Your task to perform on an android device: toggle translation in the chrome app Image 0: 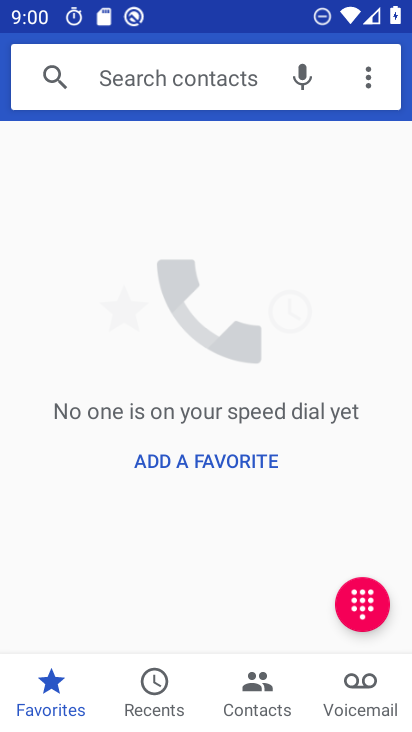
Step 0: press home button
Your task to perform on an android device: toggle translation in the chrome app Image 1: 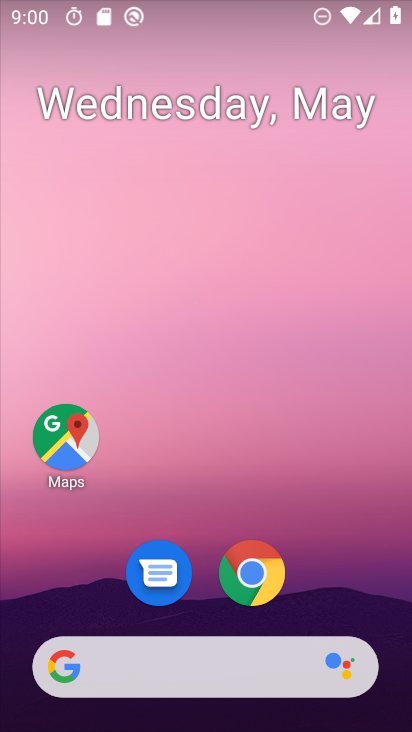
Step 1: click (264, 571)
Your task to perform on an android device: toggle translation in the chrome app Image 2: 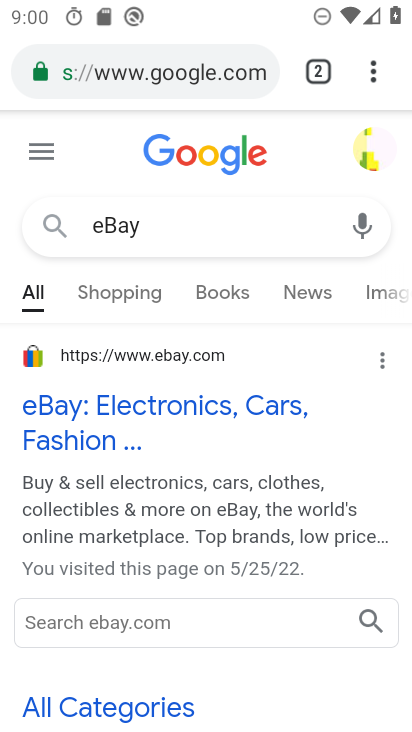
Step 2: click (372, 71)
Your task to perform on an android device: toggle translation in the chrome app Image 3: 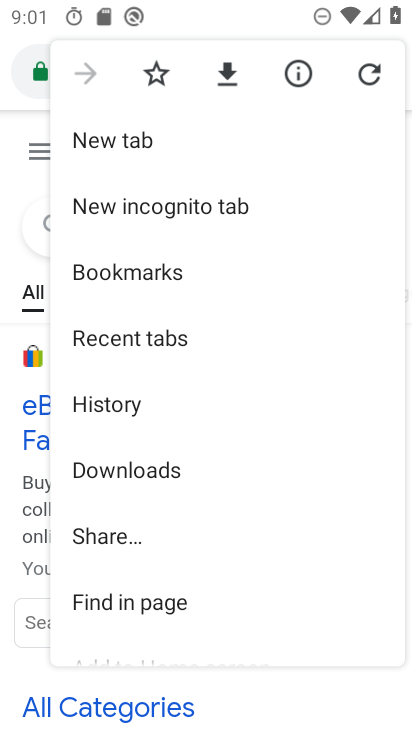
Step 3: drag from (317, 593) to (308, 281)
Your task to perform on an android device: toggle translation in the chrome app Image 4: 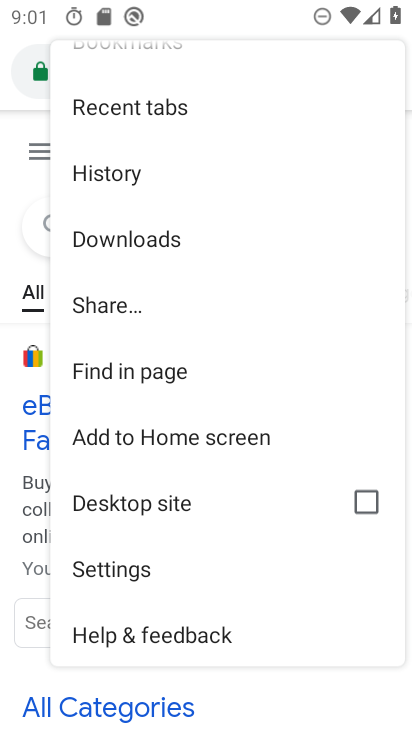
Step 4: click (105, 566)
Your task to perform on an android device: toggle translation in the chrome app Image 5: 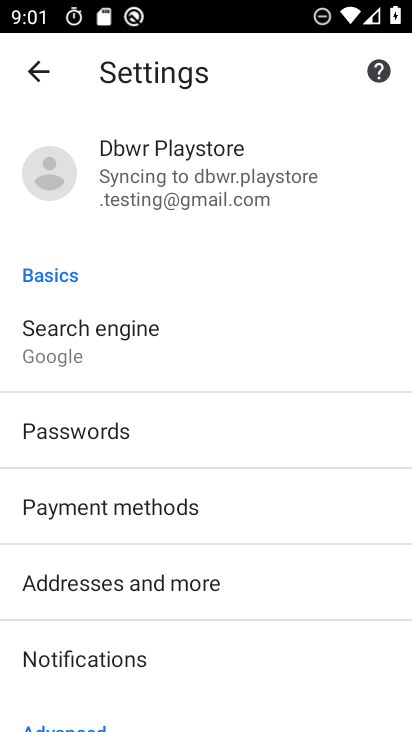
Step 5: drag from (258, 678) to (259, 395)
Your task to perform on an android device: toggle translation in the chrome app Image 6: 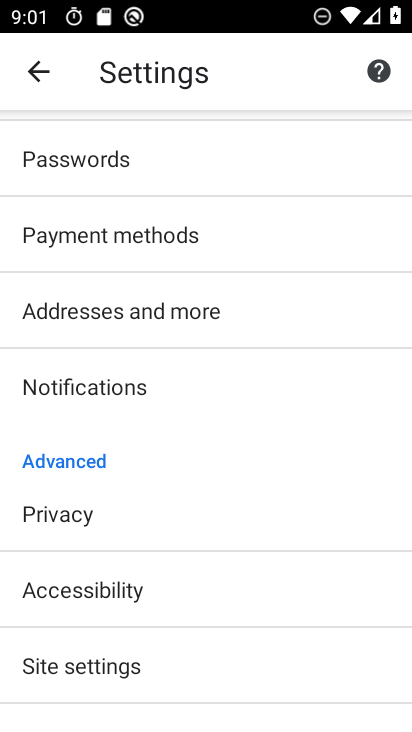
Step 6: drag from (253, 663) to (263, 373)
Your task to perform on an android device: toggle translation in the chrome app Image 7: 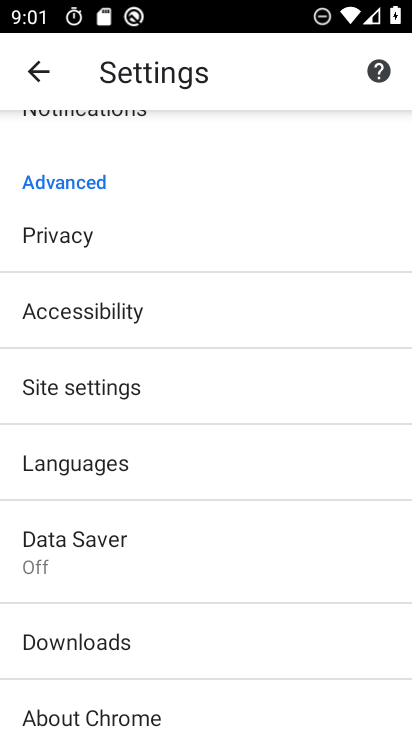
Step 7: click (126, 464)
Your task to perform on an android device: toggle translation in the chrome app Image 8: 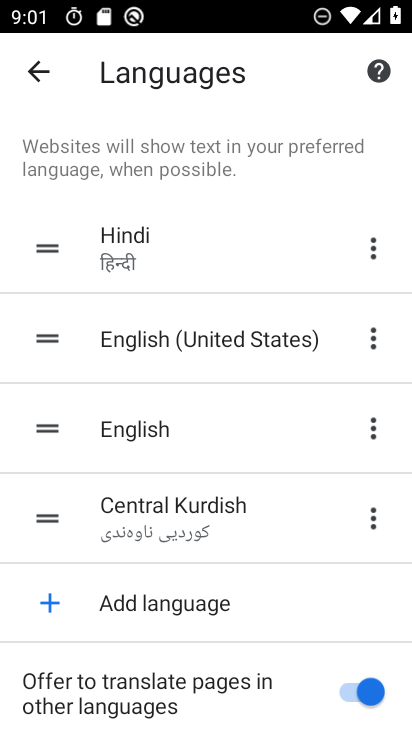
Step 8: drag from (269, 637) to (268, 507)
Your task to perform on an android device: toggle translation in the chrome app Image 9: 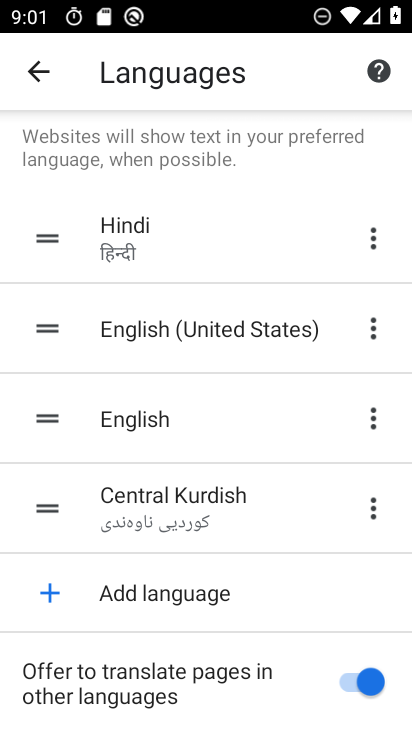
Step 9: click (345, 679)
Your task to perform on an android device: toggle translation in the chrome app Image 10: 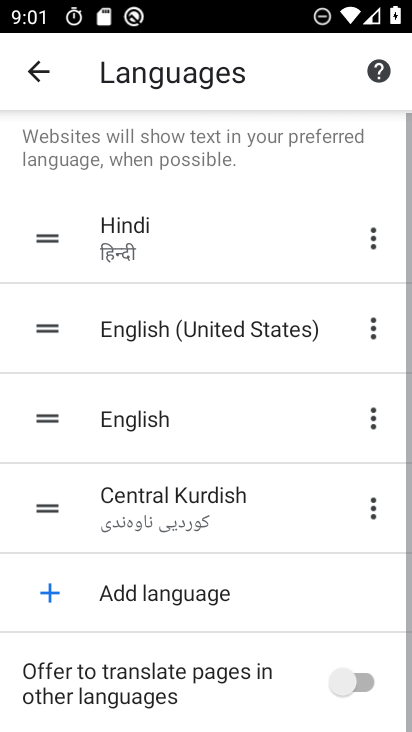
Step 10: task complete